Your task to perform on an android device: Open network settings Image 0: 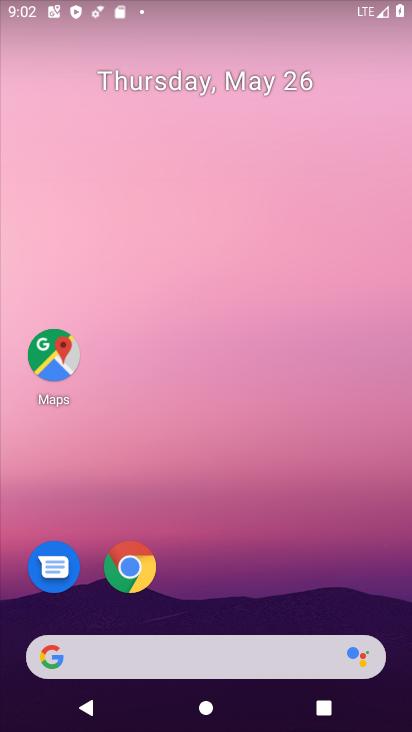
Step 0: drag from (254, 707) to (179, 1)
Your task to perform on an android device: Open network settings Image 1: 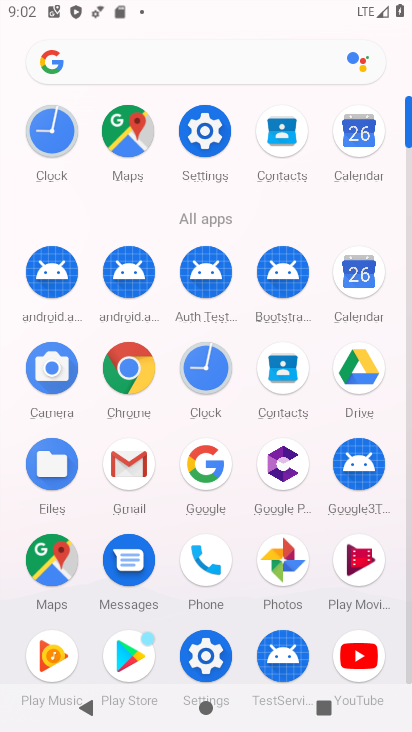
Step 1: click (206, 114)
Your task to perform on an android device: Open network settings Image 2: 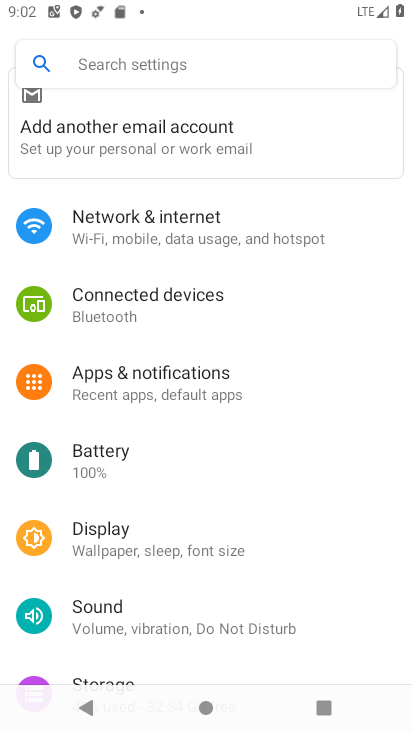
Step 2: click (253, 251)
Your task to perform on an android device: Open network settings Image 3: 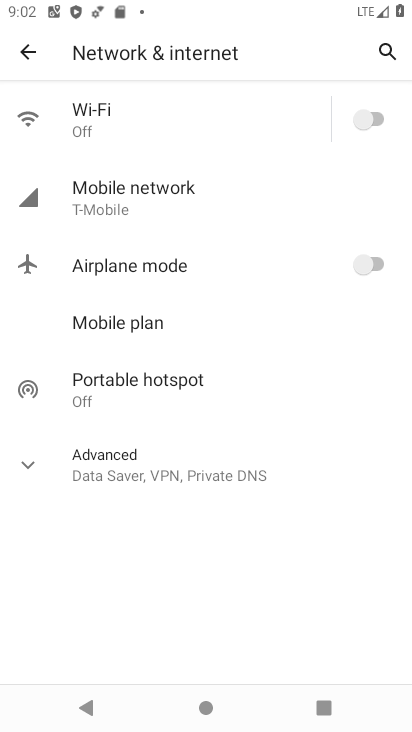
Step 3: task complete